Your task to perform on an android device: Check the weather Image 0: 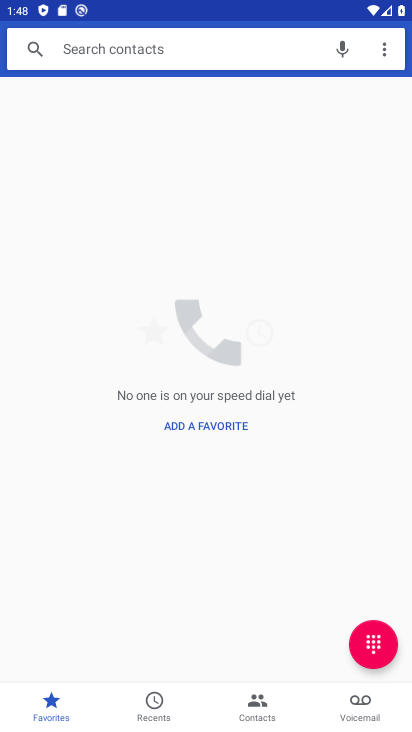
Step 0: press home button
Your task to perform on an android device: Check the weather Image 1: 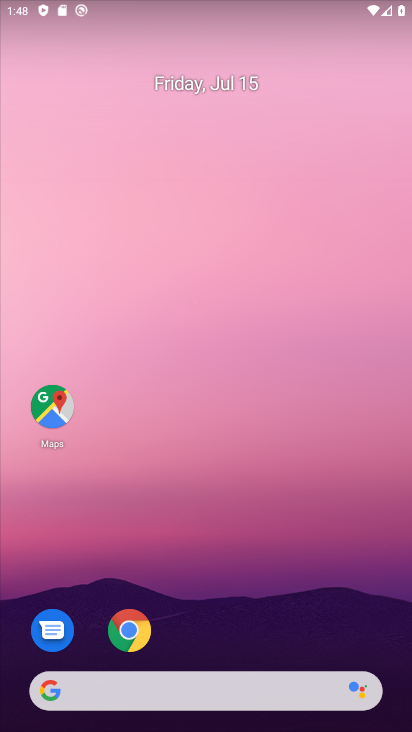
Step 1: click (289, 689)
Your task to perform on an android device: Check the weather Image 2: 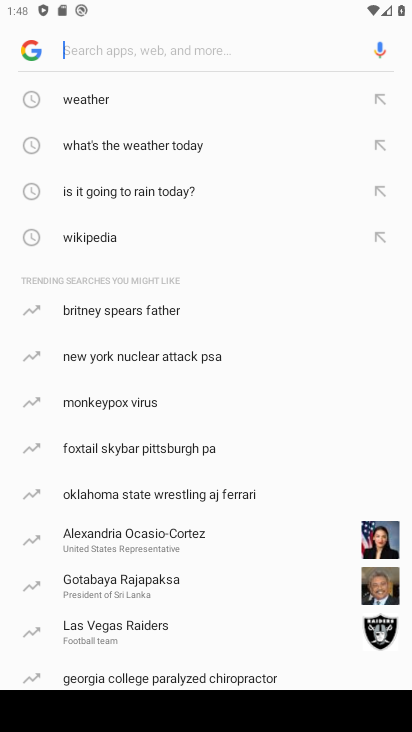
Step 2: click (141, 101)
Your task to perform on an android device: Check the weather Image 3: 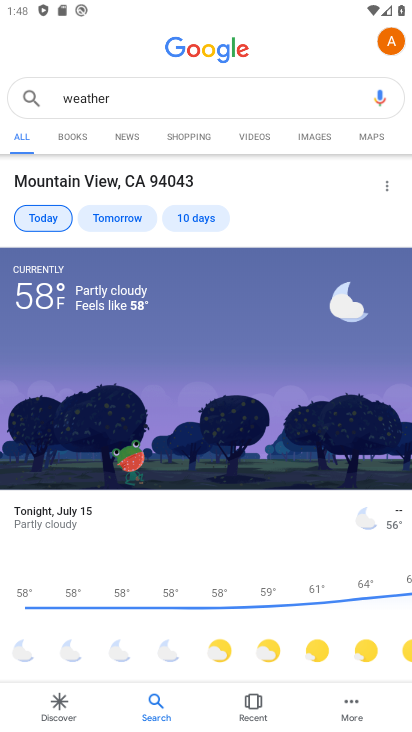
Step 3: task complete